Your task to perform on an android device: manage bookmarks in the chrome app Image 0: 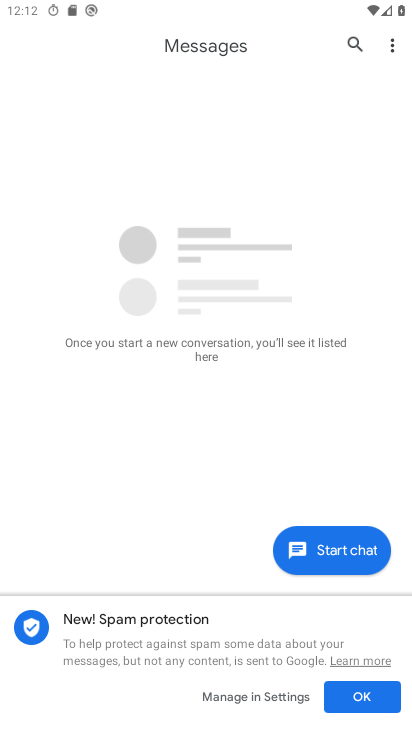
Step 0: press home button
Your task to perform on an android device: manage bookmarks in the chrome app Image 1: 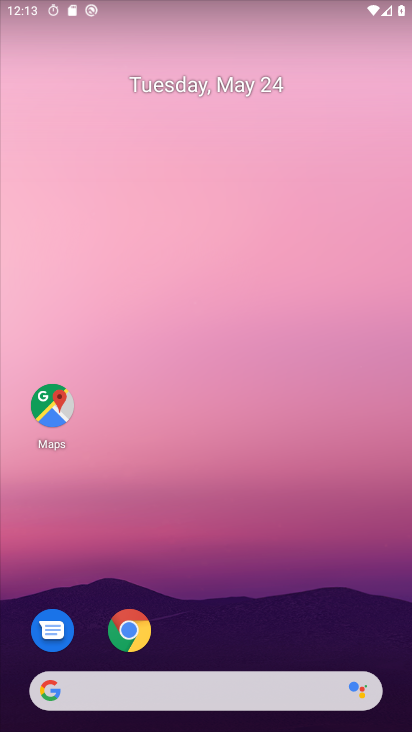
Step 1: click (194, 650)
Your task to perform on an android device: manage bookmarks in the chrome app Image 2: 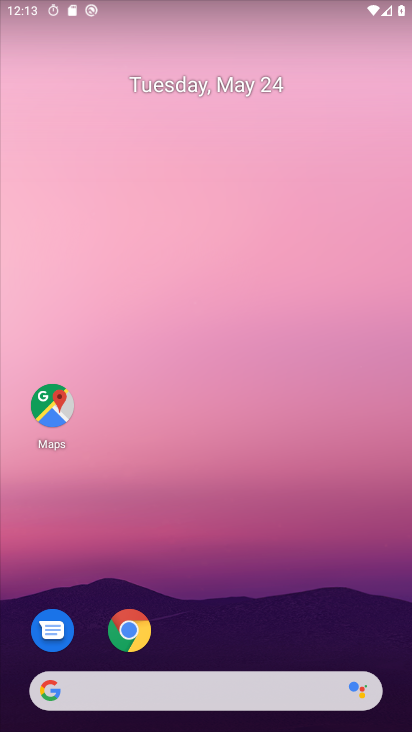
Step 2: click (136, 629)
Your task to perform on an android device: manage bookmarks in the chrome app Image 3: 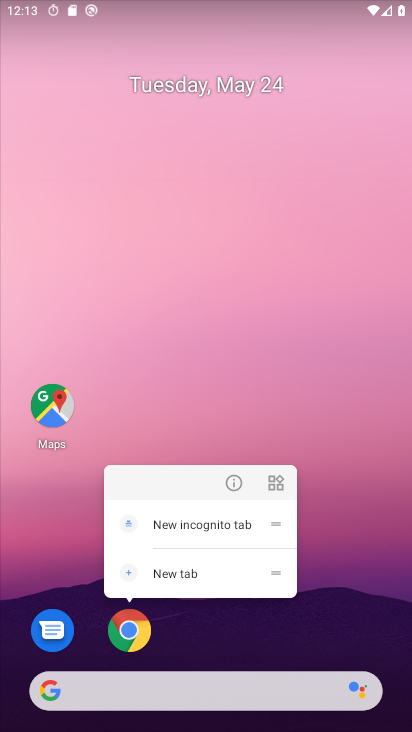
Step 3: click (134, 632)
Your task to perform on an android device: manage bookmarks in the chrome app Image 4: 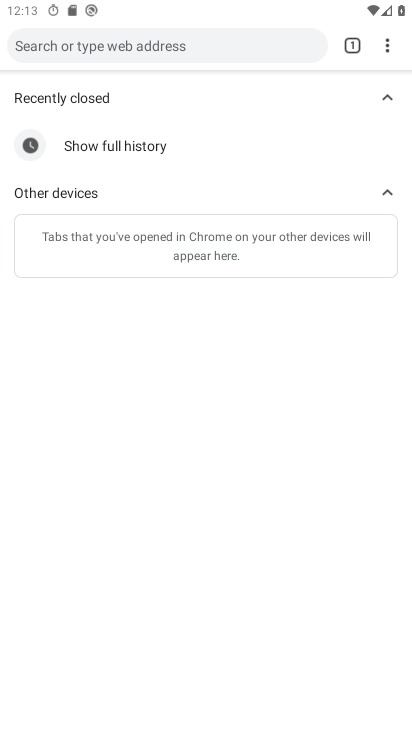
Step 4: click (392, 46)
Your task to perform on an android device: manage bookmarks in the chrome app Image 5: 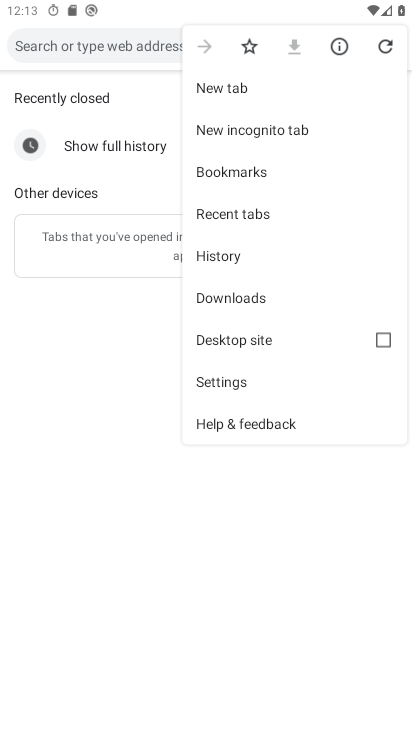
Step 5: click (225, 173)
Your task to perform on an android device: manage bookmarks in the chrome app Image 6: 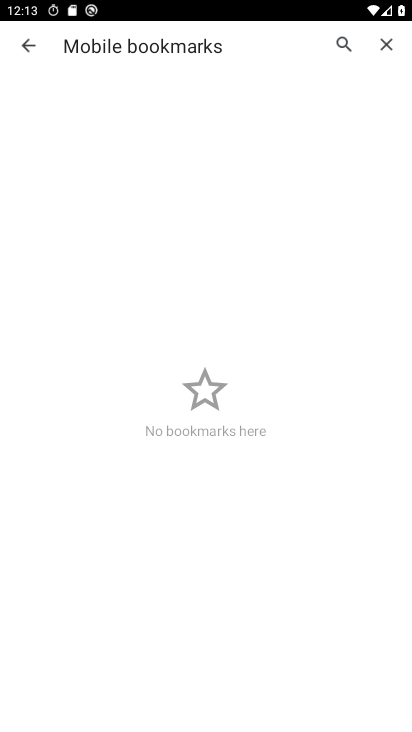
Step 6: task complete